Your task to perform on an android device: open sync settings in chrome Image 0: 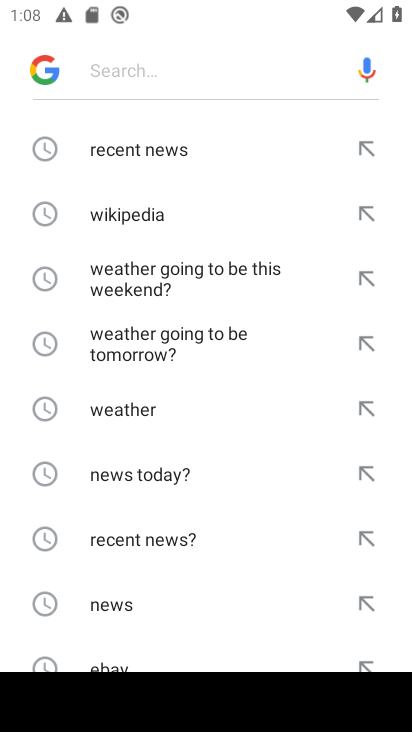
Step 0: press home button
Your task to perform on an android device: open sync settings in chrome Image 1: 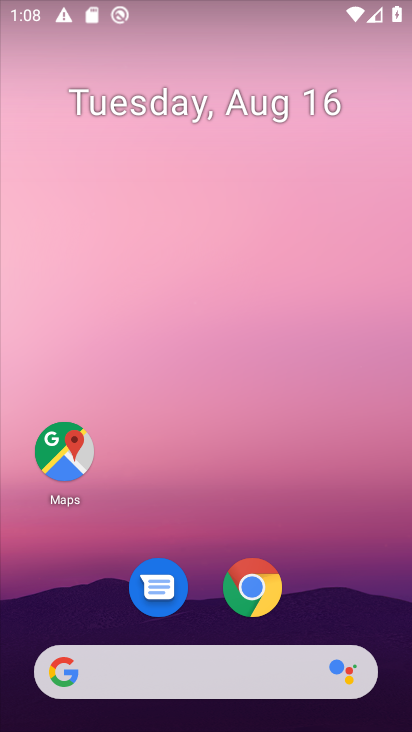
Step 1: click (262, 591)
Your task to perform on an android device: open sync settings in chrome Image 2: 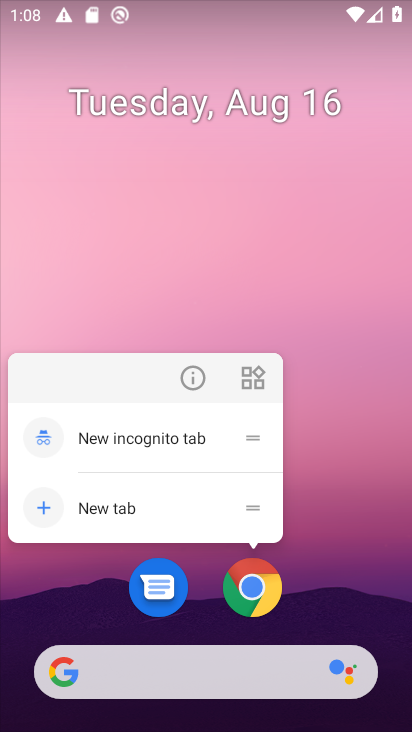
Step 2: click (255, 590)
Your task to perform on an android device: open sync settings in chrome Image 3: 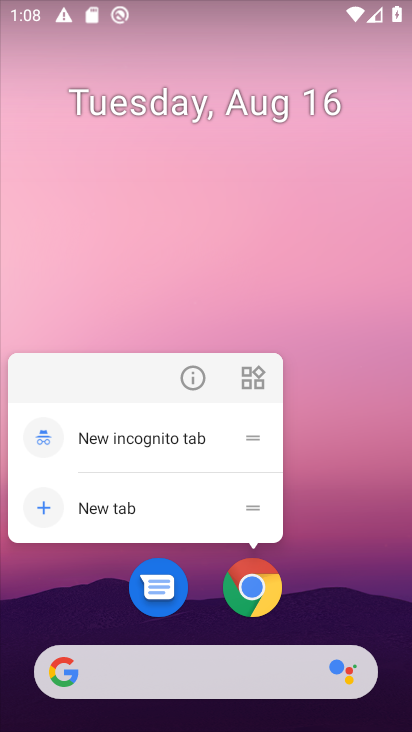
Step 3: click (255, 590)
Your task to perform on an android device: open sync settings in chrome Image 4: 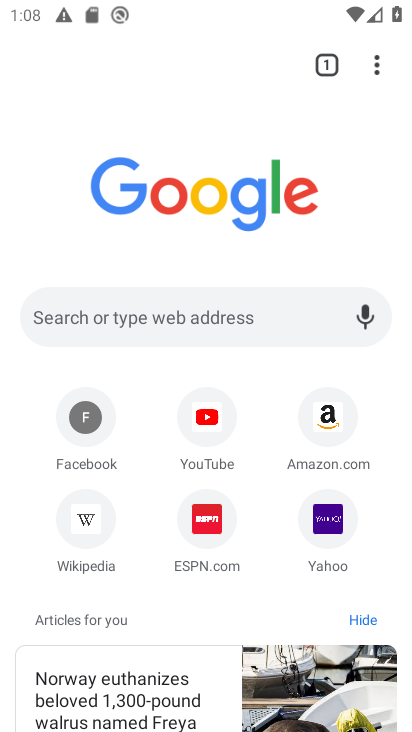
Step 4: click (377, 54)
Your task to perform on an android device: open sync settings in chrome Image 5: 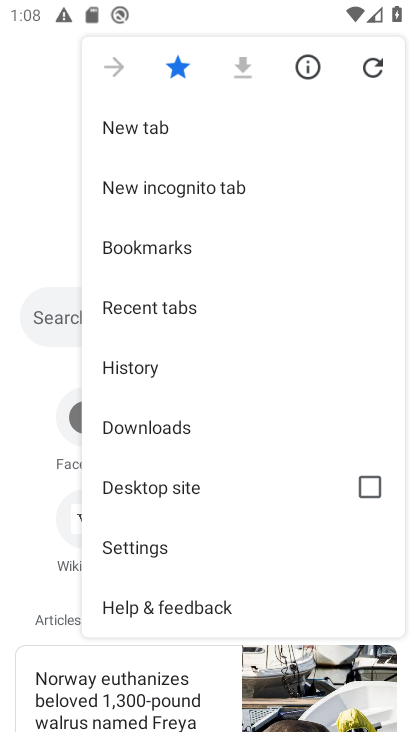
Step 5: click (112, 551)
Your task to perform on an android device: open sync settings in chrome Image 6: 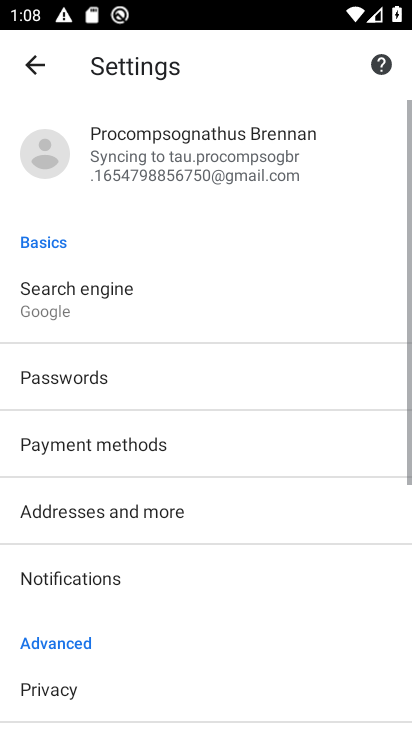
Step 6: click (189, 145)
Your task to perform on an android device: open sync settings in chrome Image 7: 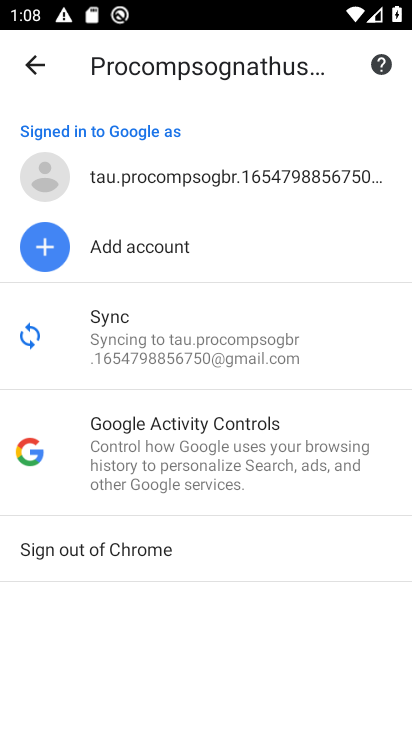
Step 7: click (143, 357)
Your task to perform on an android device: open sync settings in chrome Image 8: 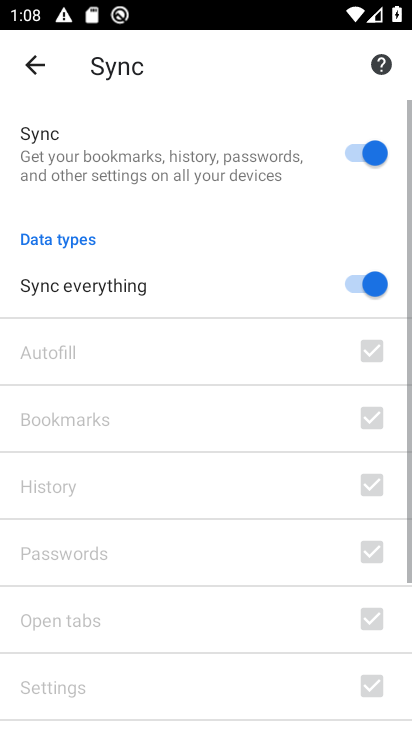
Step 8: task complete